Your task to perform on an android device: turn on bluetooth scan Image 0: 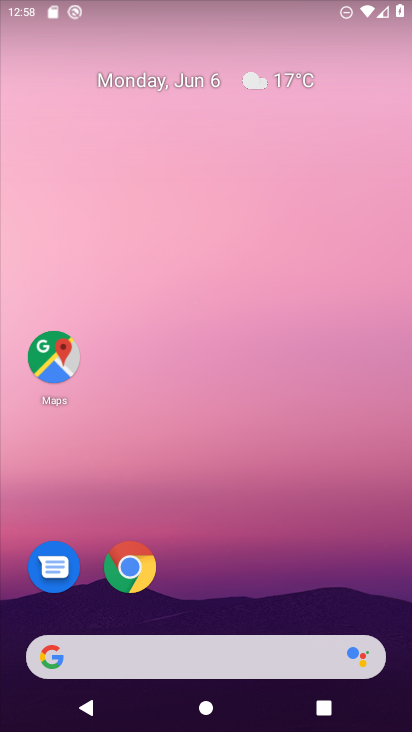
Step 0: drag from (230, 728) to (230, 158)
Your task to perform on an android device: turn on bluetooth scan Image 1: 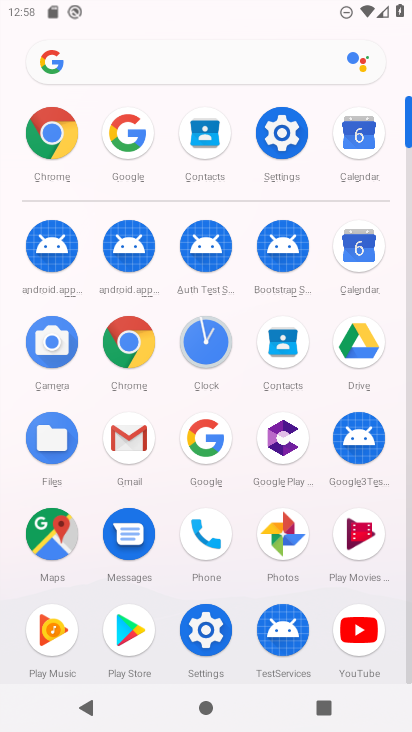
Step 1: click (289, 140)
Your task to perform on an android device: turn on bluetooth scan Image 2: 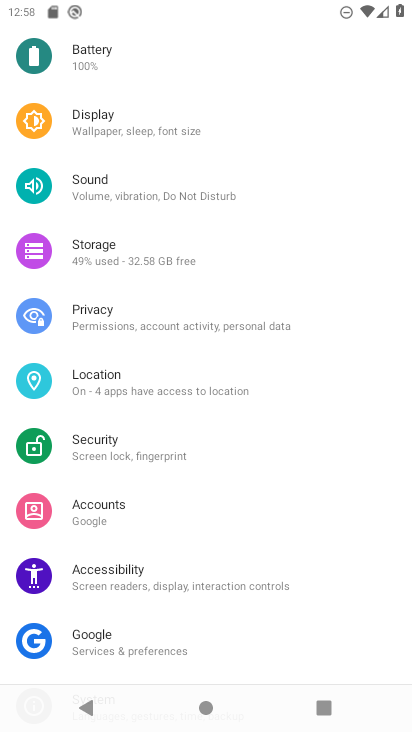
Step 2: click (108, 380)
Your task to perform on an android device: turn on bluetooth scan Image 3: 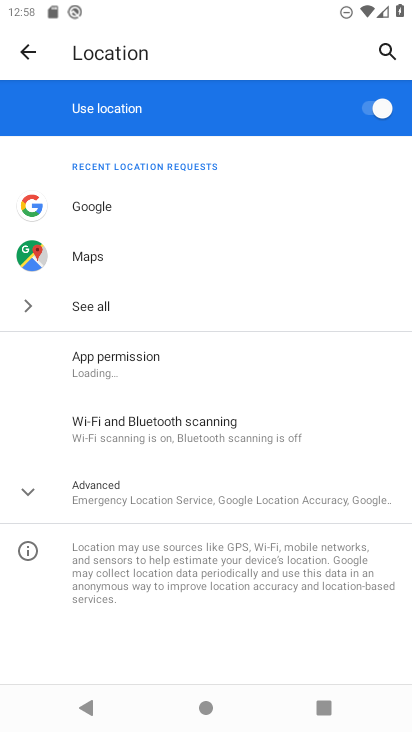
Step 3: click (120, 423)
Your task to perform on an android device: turn on bluetooth scan Image 4: 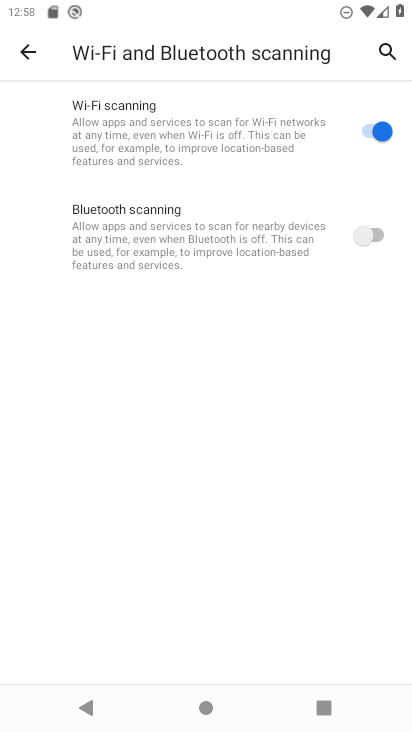
Step 4: click (372, 230)
Your task to perform on an android device: turn on bluetooth scan Image 5: 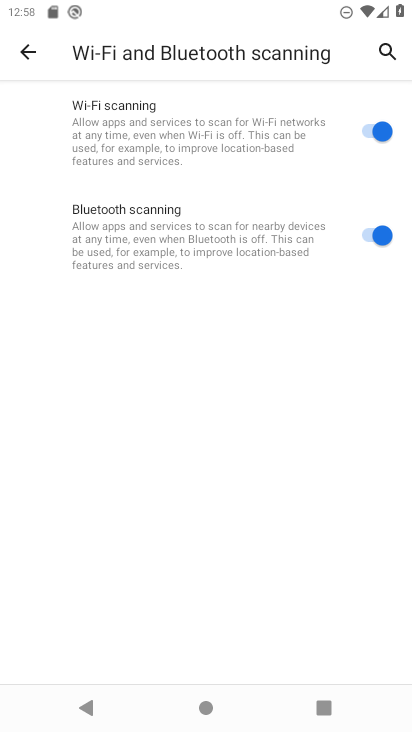
Step 5: task complete